Your task to perform on an android device: Open my contact list Image 0: 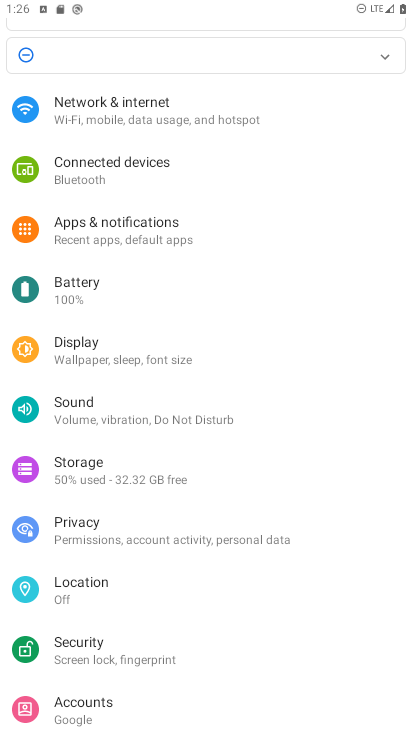
Step 0: press home button
Your task to perform on an android device: Open my contact list Image 1: 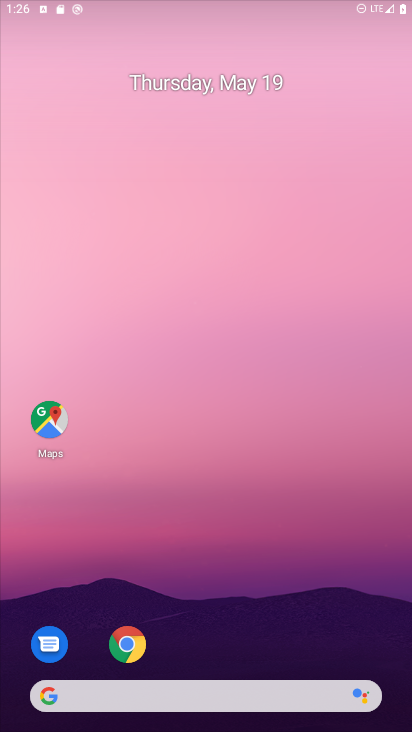
Step 1: drag from (310, 628) to (293, 64)
Your task to perform on an android device: Open my contact list Image 2: 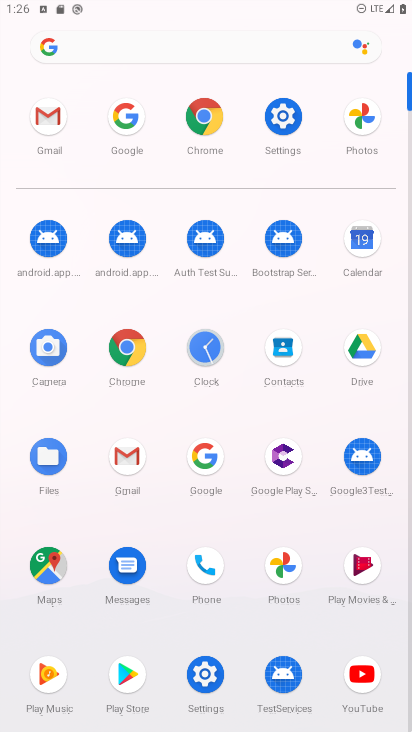
Step 2: click (284, 360)
Your task to perform on an android device: Open my contact list Image 3: 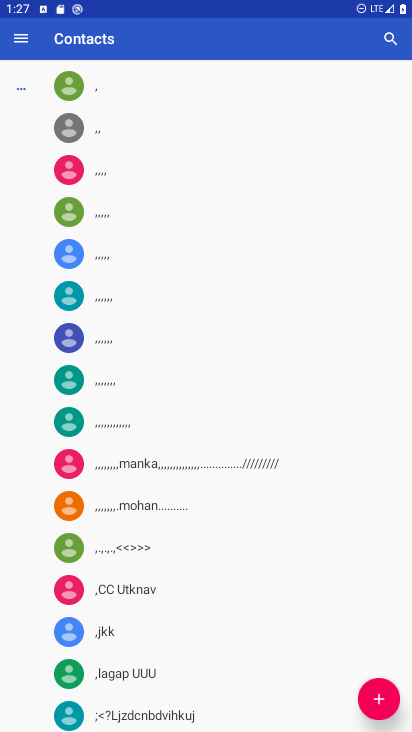
Step 3: task complete